Your task to perform on an android device: What's the weather going to be this weekend? Image 0: 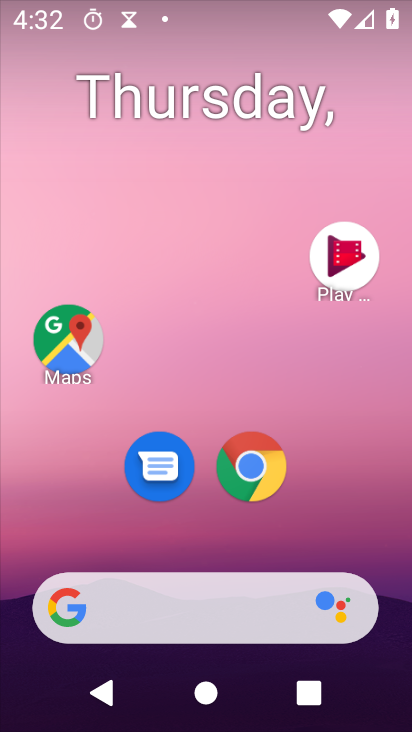
Step 0: drag from (238, 602) to (276, 49)
Your task to perform on an android device: What's the weather going to be this weekend? Image 1: 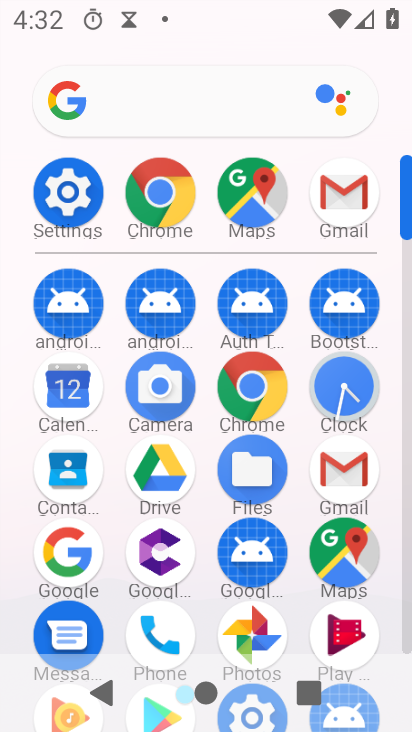
Step 1: click (61, 401)
Your task to perform on an android device: What's the weather going to be this weekend? Image 2: 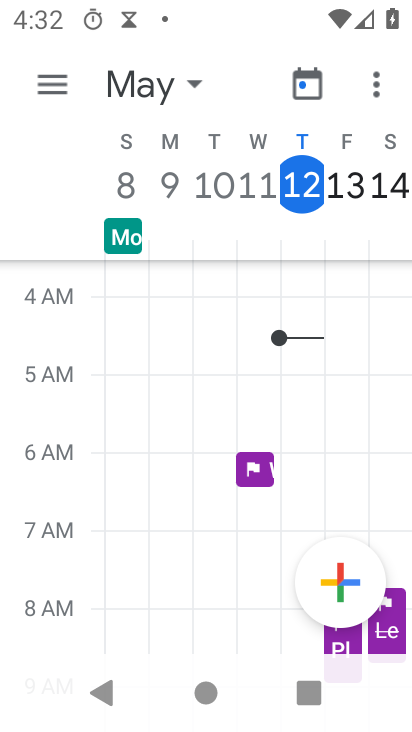
Step 2: press home button
Your task to perform on an android device: What's the weather going to be this weekend? Image 3: 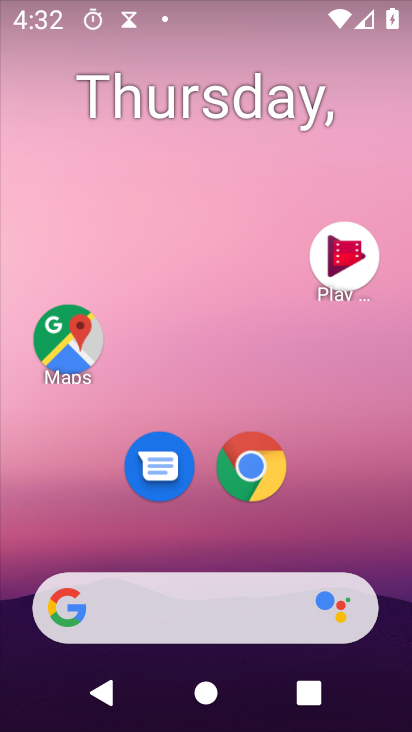
Step 3: drag from (240, 628) to (253, 86)
Your task to perform on an android device: What's the weather going to be this weekend? Image 4: 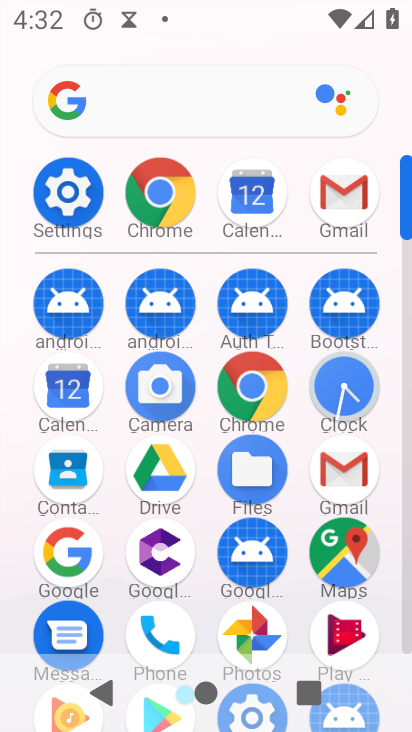
Step 4: click (262, 370)
Your task to perform on an android device: What's the weather going to be this weekend? Image 5: 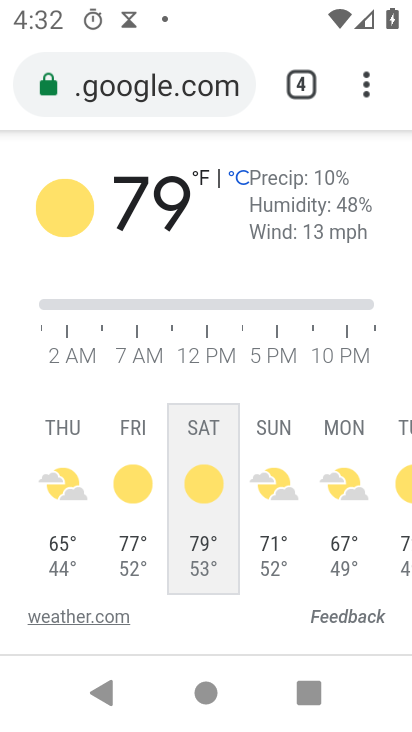
Step 5: click (230, 81)
Your task to perform on an android device: What's the weather going to be this weekend? Image 6: 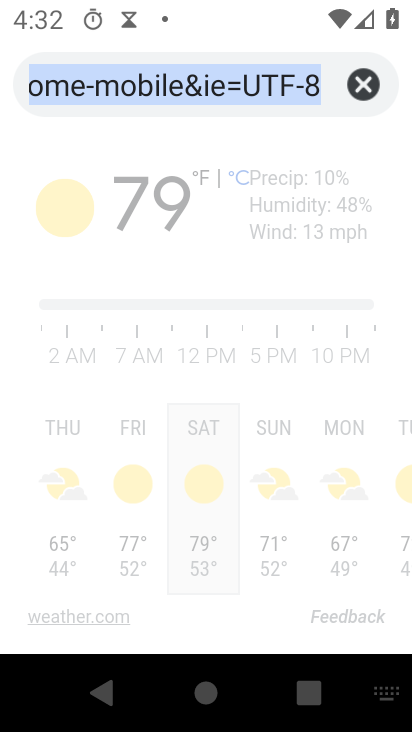
Step 6: click (355, 87)
Your task to perform on an android device: What's the weather going to be this weekend? Image 7: 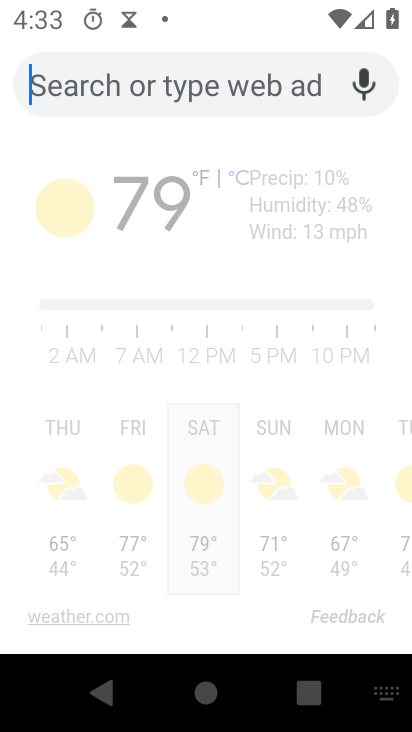
Step 7: type "weather going to be this weekend"
Your task to perform on an android device: What's the weather going to be this weekend? Image 8: 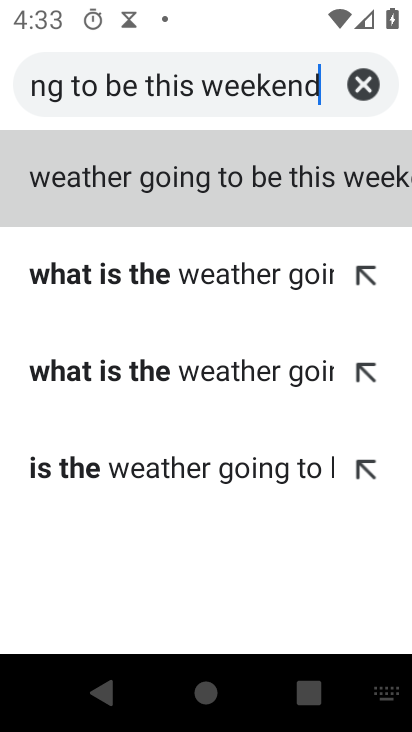
Step 8: click (320, 177)
Your task to perform on an android device: What's the weather going to be this weekend? Image 9: 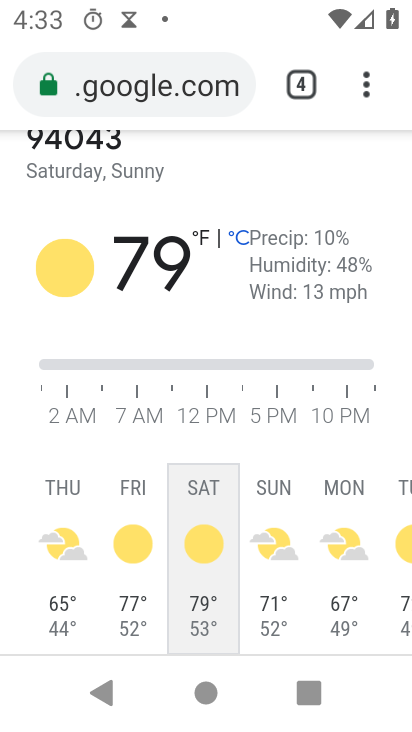
Step 9: task complete